Your task to perform on an android device: Open Youtube and go to "Your channel" Image 0: 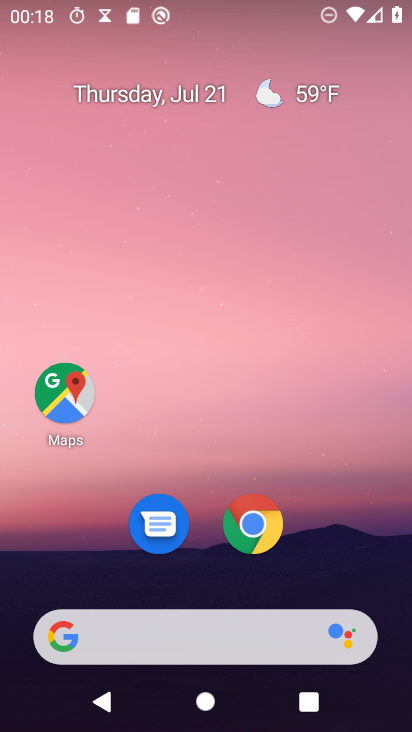
Step 0: drag from (217, 646) to (261, 194)
Your task to perform on an android device: Open Youtube and go to "Your channel" Image 1: 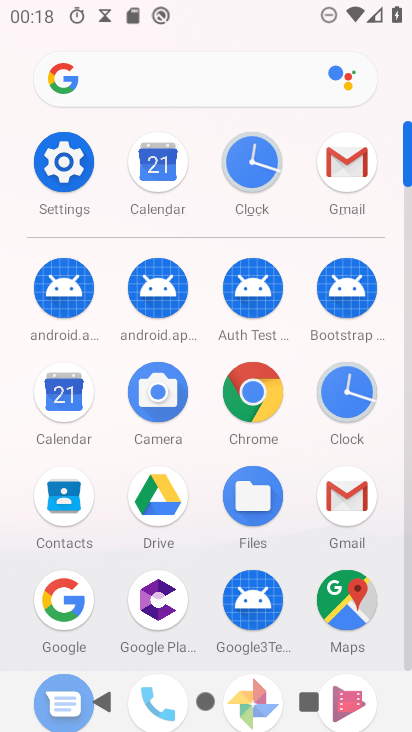
Step 1: drag from (217, 639) to (341, 133)
Your task to perform on an android device: Open Youtube and go to "Your channel" Image 2: 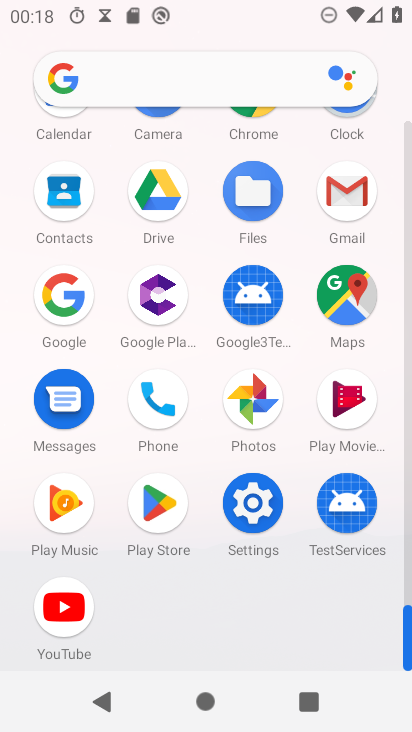
Step 2: click (72, 607)
Your task to perform on an android device: Open Youtube and go to "Your channel" Image 3: 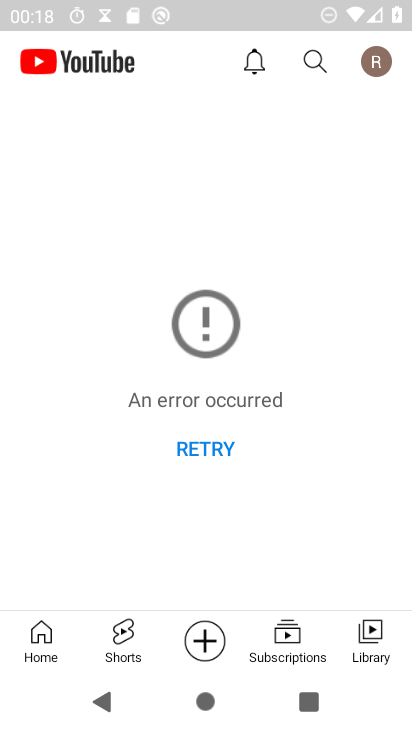
Step 3: click (217, 450)
Your task to perform on an android device: Open Youtube and go to "Your channel" Image 4: 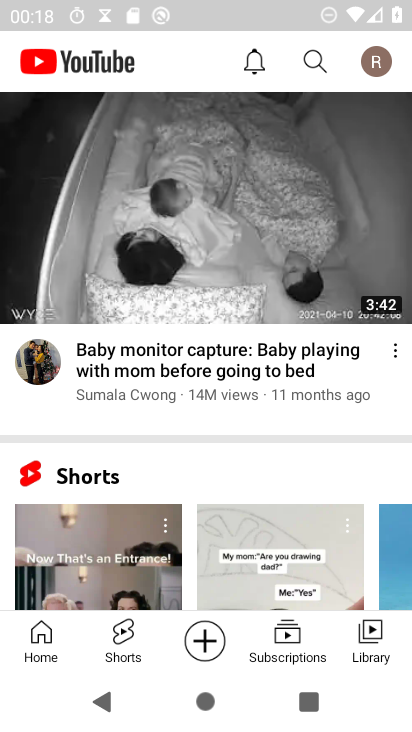
Step 4: click (377, 55)
Your task to perform on an android device: Open Youtube and go to "Your channel" Image 5: 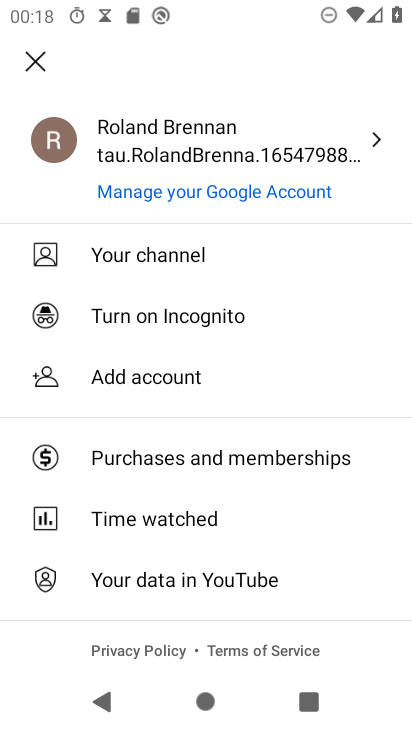
Step 5: click (151, 265)
Your task to perform on an android device: Open Youtube and go to "Your channel" Image 6: 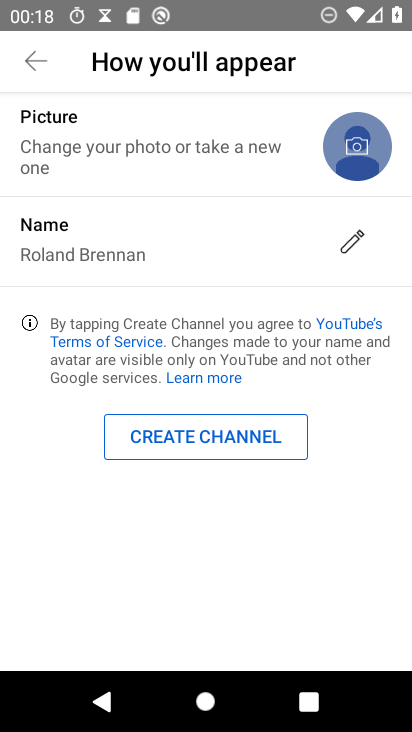
Step 6: task complete